Your task to perform on an android device: open wifi settings Image 0: 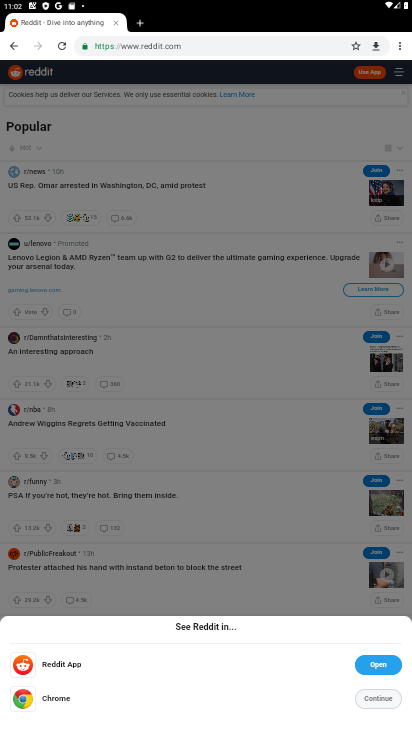
Step 0: press home button
Your task to perform on an android device: open wifi settings Image 1: 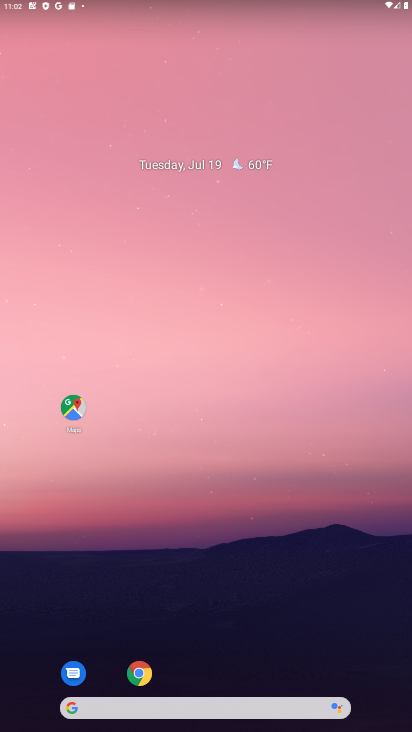
Step 1: drag from (375, 673) to (287, 240)
Your task to perform on an android device: open wifi settings Image 2: 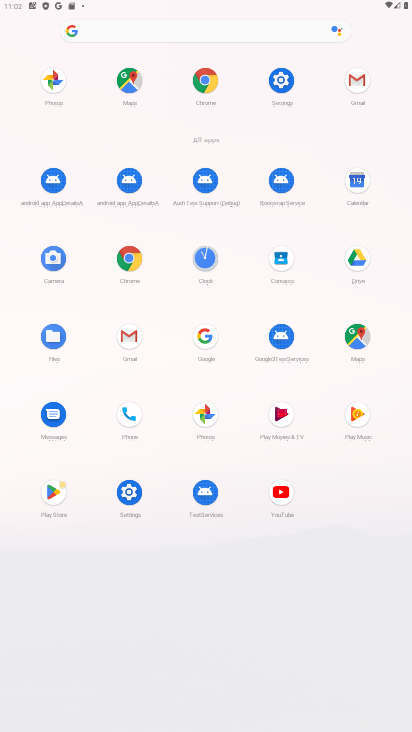
Step 2: click (127, 492)
Your task to perform on an android device: open wifi settings Image 3: 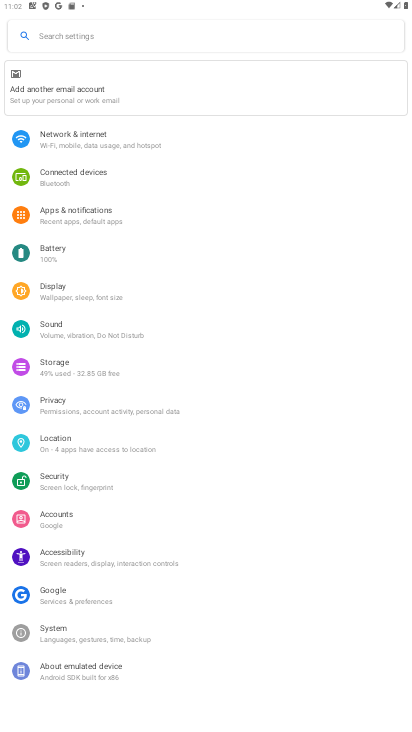
Step 3: click (92, 132)
Your task to perform on an android device: open wifi settings Image 4: 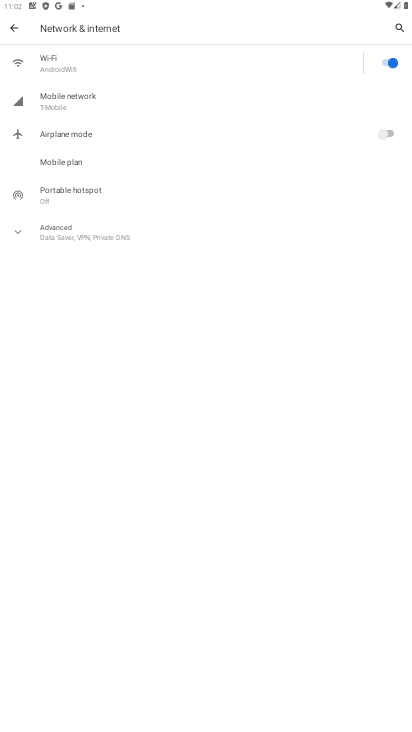
Step 4: click (44, 61)
Your task to perform on an android device: open wifi settings Image 5: 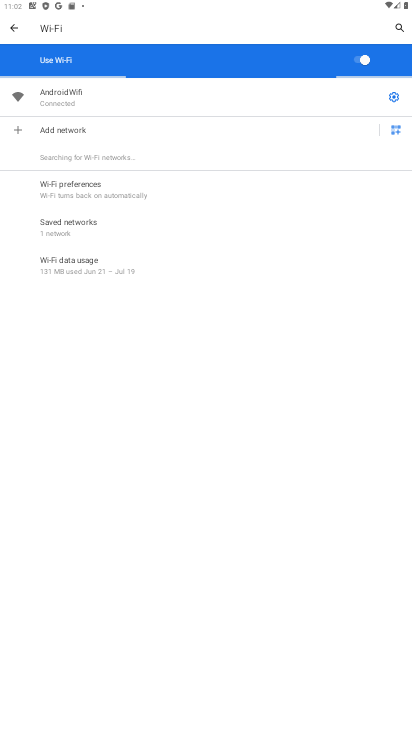
Step 5: click (394, 98)
Your task to perform on an android device: open wifi settings Image 6: 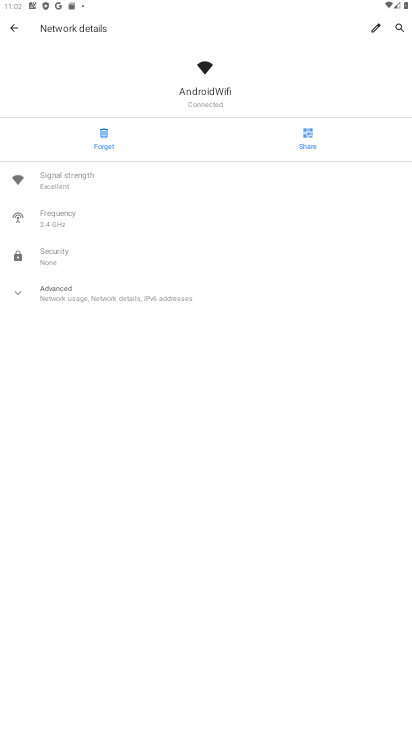
Step 6: task complete